Your task to perform on an android device: Set the phone to "Do not disturb". Image 0: 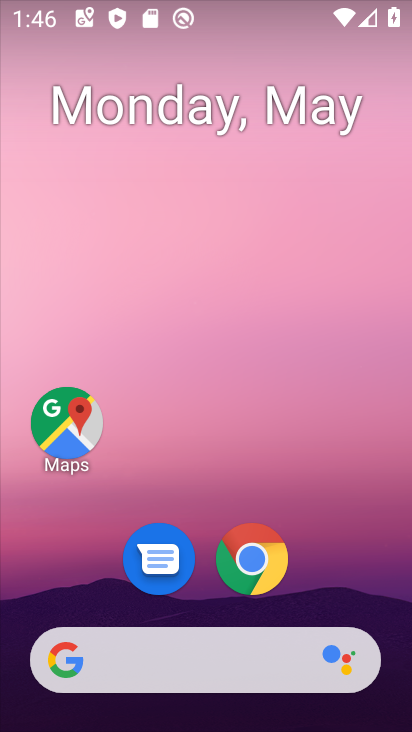
Step 0: drag from (249, 4) to (74, 712)
Your task to perform on an android device: Set the phone to "Do not disturb". Image 1: 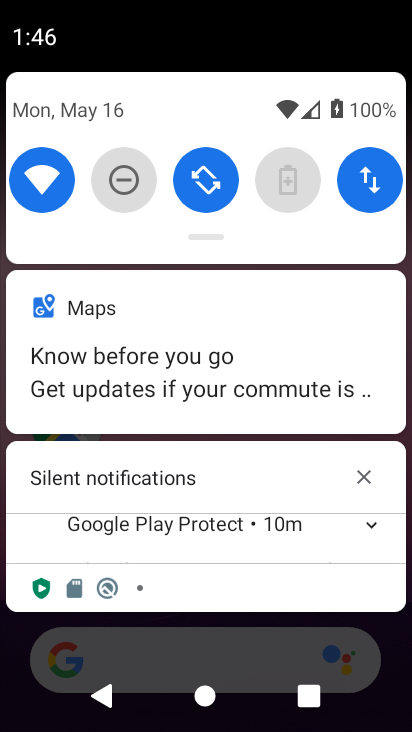
Step 1: click (44, 182)
Your task to perform on an android device: Set the phone to "Do not disturb". Image 2: 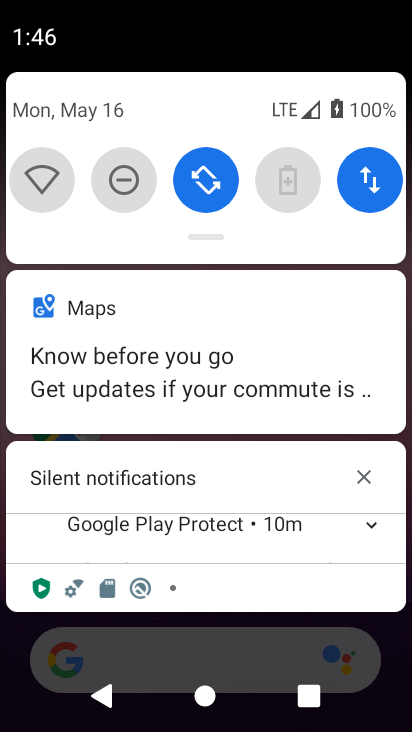
Step 2: click (44, 182)
Your task to perform on an android device: Set the phone to "Do not disturb". Image 3: 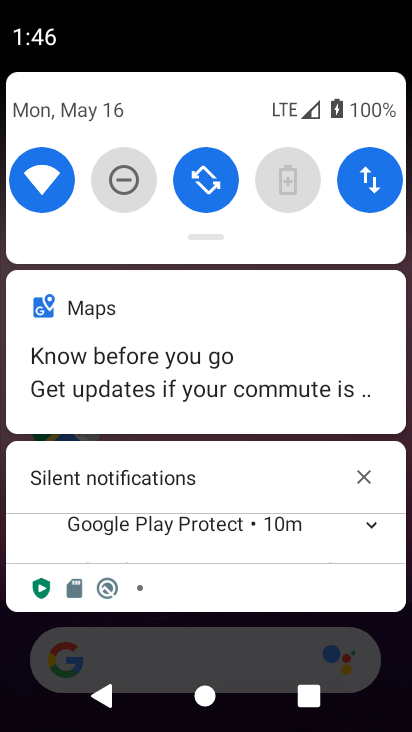
Step 3: click (127, 185)
Your task to perform on an android device: Set the phone to "Do not disturb". Image 4: 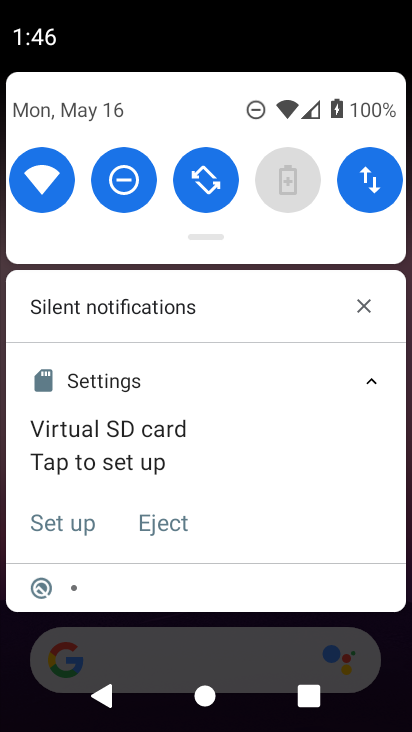
Step 4: task complete